Your task to perform on an android device: toggle sleep mode Image 0: 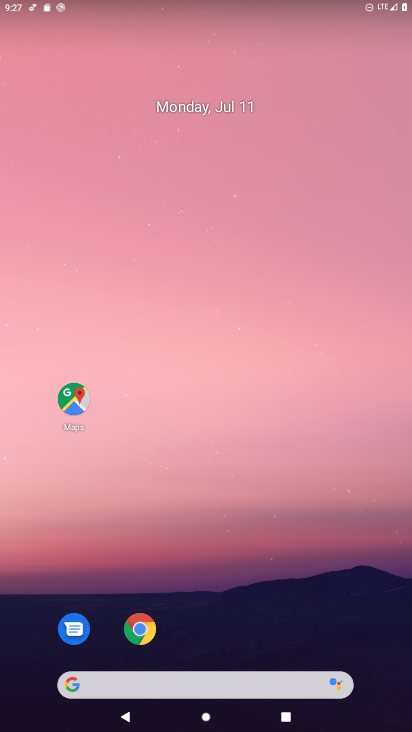
Step 0: drag from (205, 13) to (241, 625)
Your task to perform on an android device: toggle sleep mode Image 1: 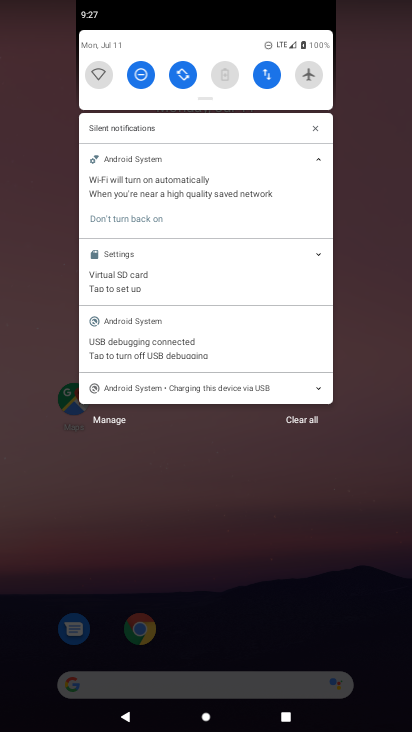
Step 1: drag from (212, 47) to (202, 407)
Your task to perform on an android device: toggle sleep mode Image 2: 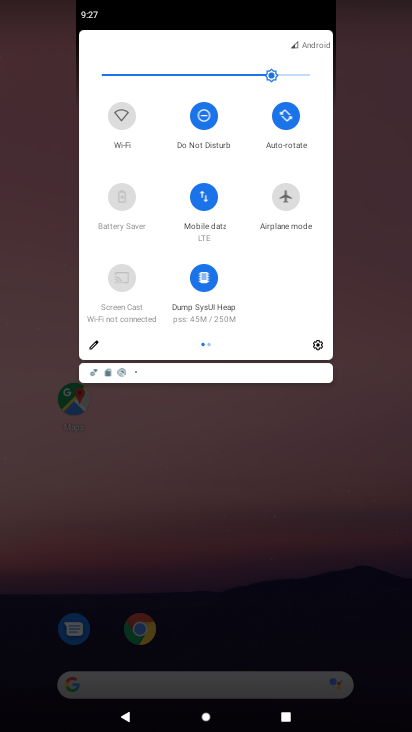
Step 2: click (322, 346)
Your task to perform on an android device: toggle sleep mode Image 3: 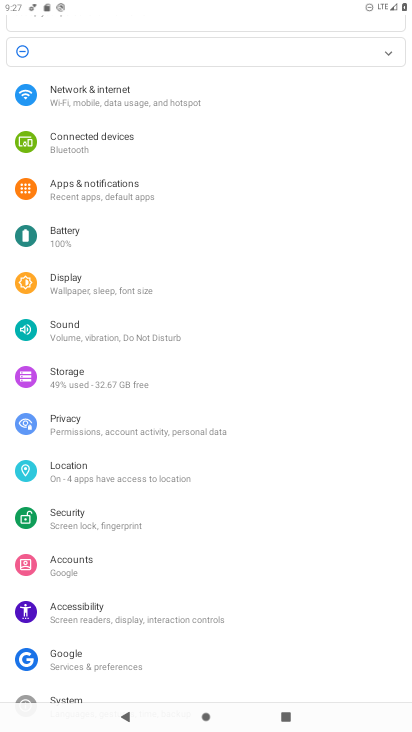
Step 3: task complete